Your task to perform on an android device: What's the weather? Image 0: 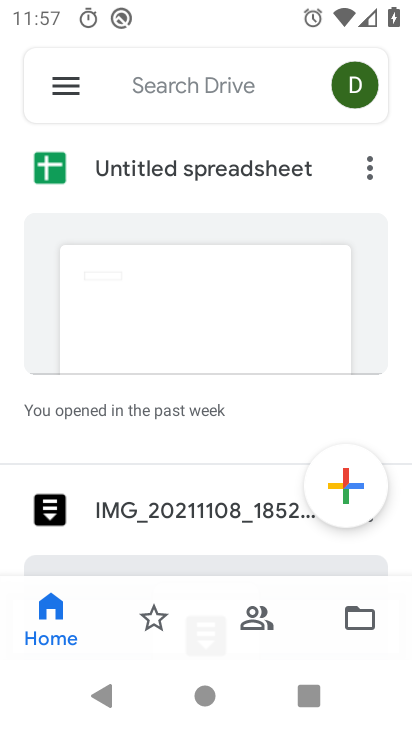
Step 0: press home button
Your task to perform on an android device: What's the weather? Image 1: 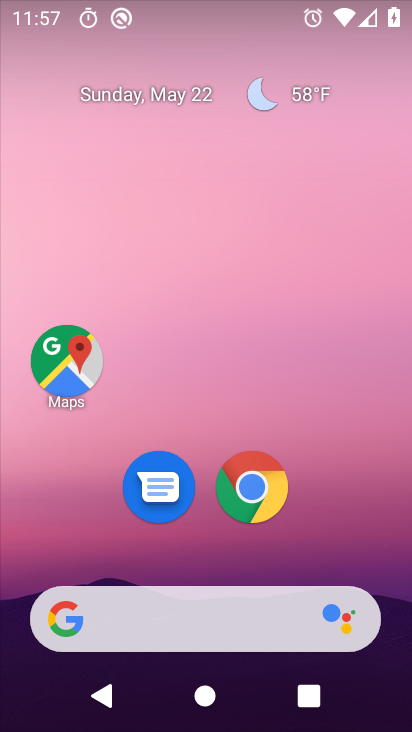
Step 1: drag from (348, 495) to (329, 104)
Your task to perform on an android device: What's the weather? Image 2: 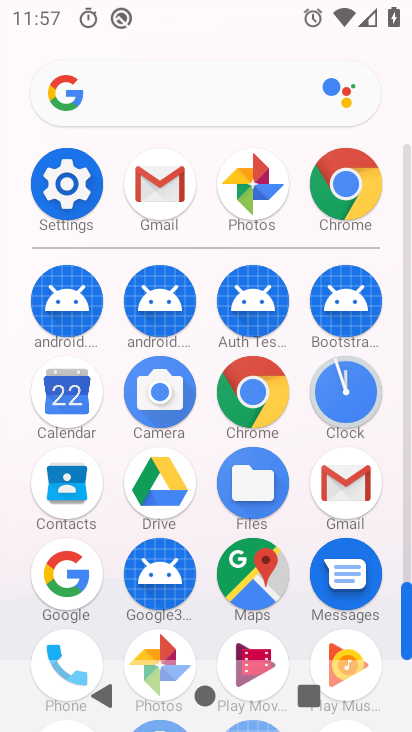
Step 2: click (347, 200)
Your task to perform on an android device: What's the weather? Image 3: 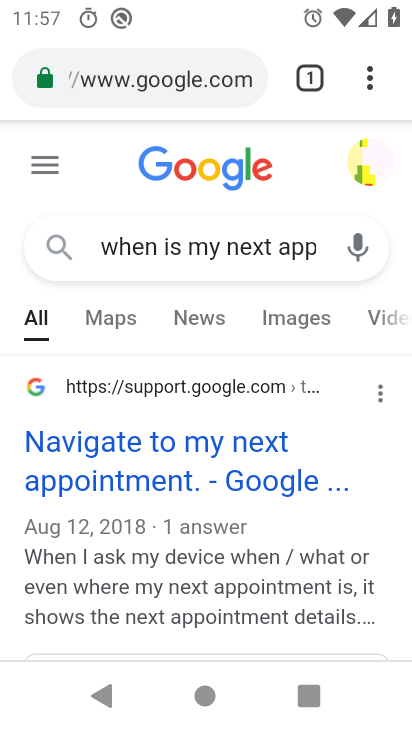
Step 3: click (153, 85)
Your task to perform on an android device: What's the weather? Image 4: 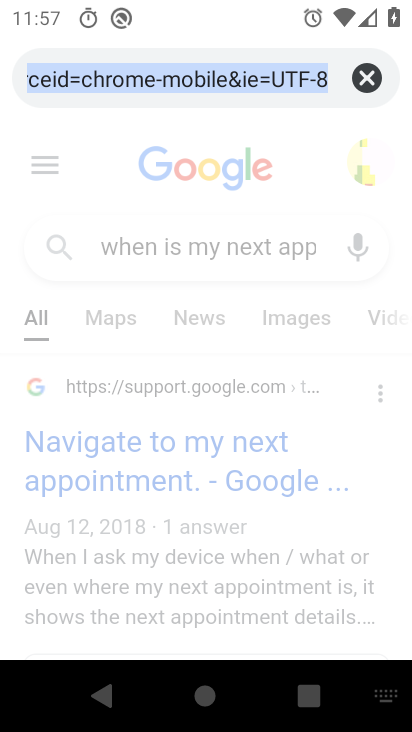
Step 4: click (365, 77)
Your task to perform on an android device: What's the weather? Image 5: 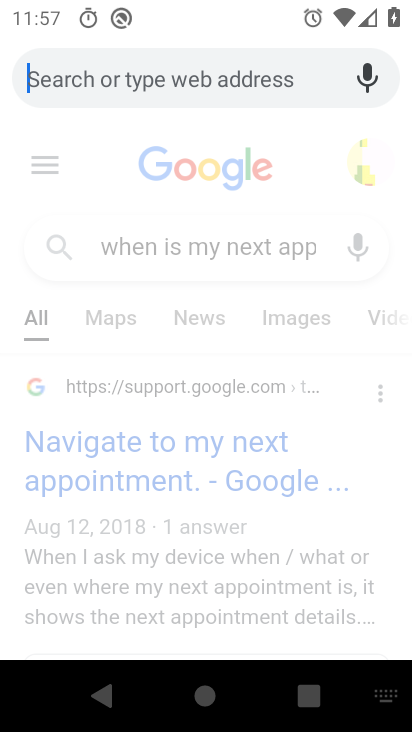
Step 5: type "what's the weather "
Your task to perform on an android device: What's the weather? Image 6: 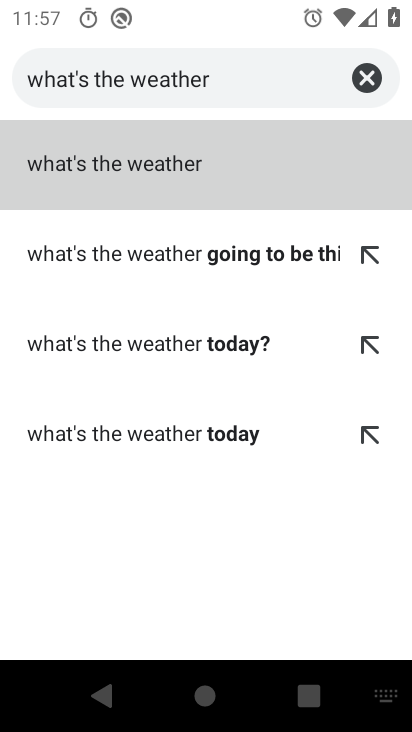
Step 6: click (143, 165)
Your task to perform on an android device: What's the weather? Image 7: 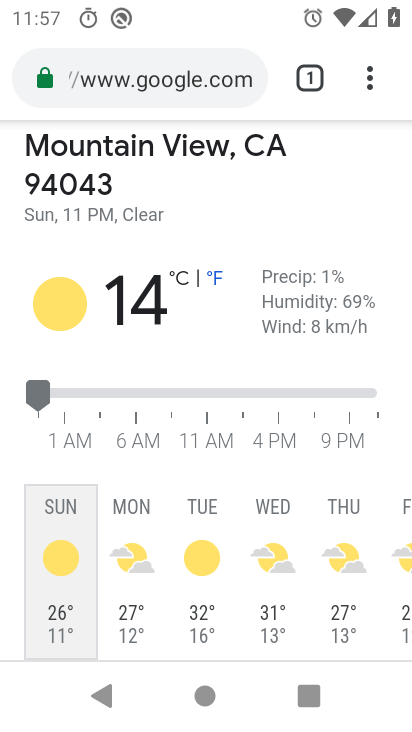
Step 7: task complete